Your task to perform on an android device: Open display settings Image 0: 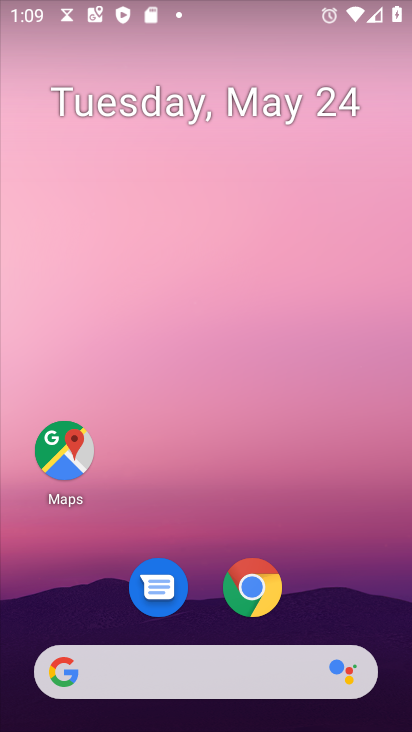
Step 0: drag from (252, 668) to (227, 149)
Your task to perform on an android device: Open display settings Image 1: 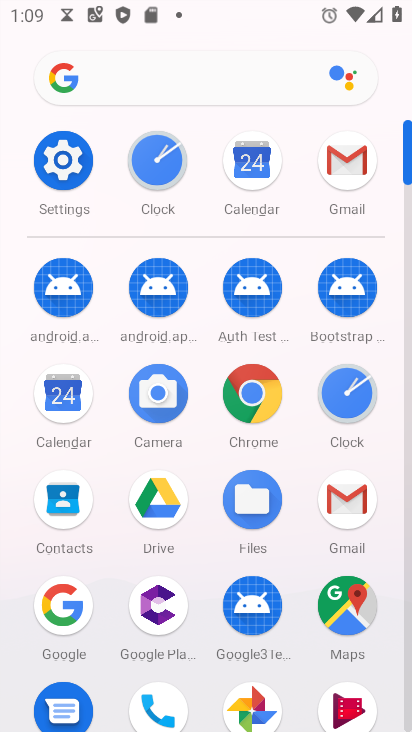
Step 1: click (76, 171)
Your task to perform on an android device: Open display settings Image 2: 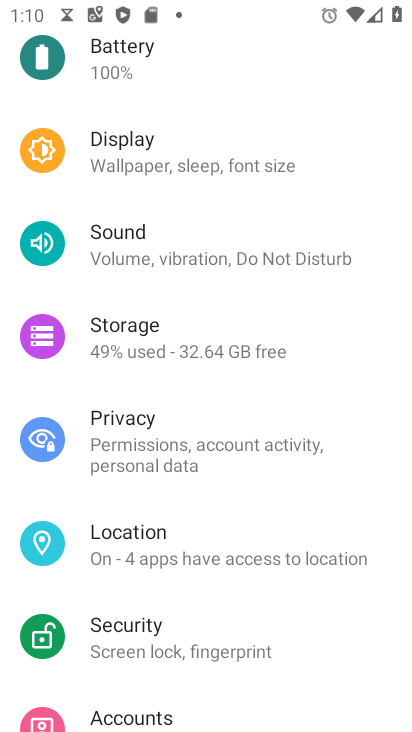
Step 2: click (147, 161)
Your task to perform on an android device: Open display settings Image 3: 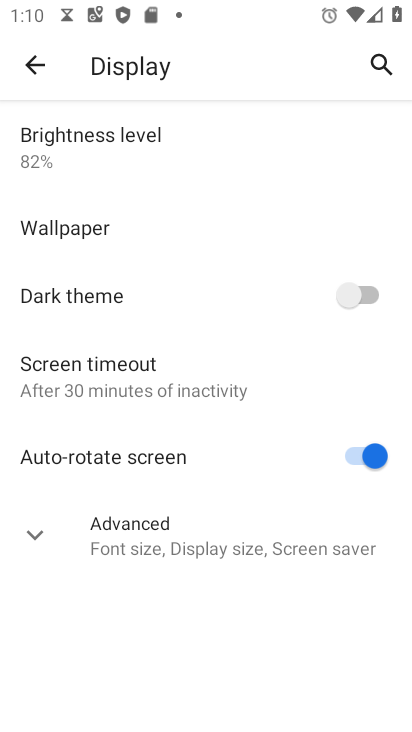
Step 3: task complete